Your task to perform on an android device: allow cookies in the chrome app Image 0: 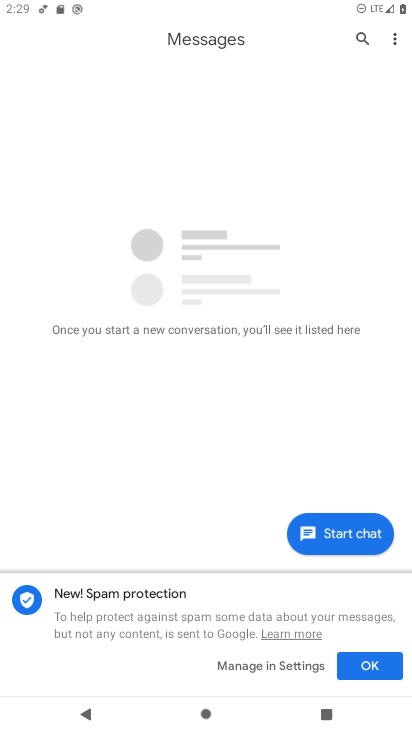
Step 0: press home button
Your task to perform on an android device: allow cookies in the chrome app Image 1: 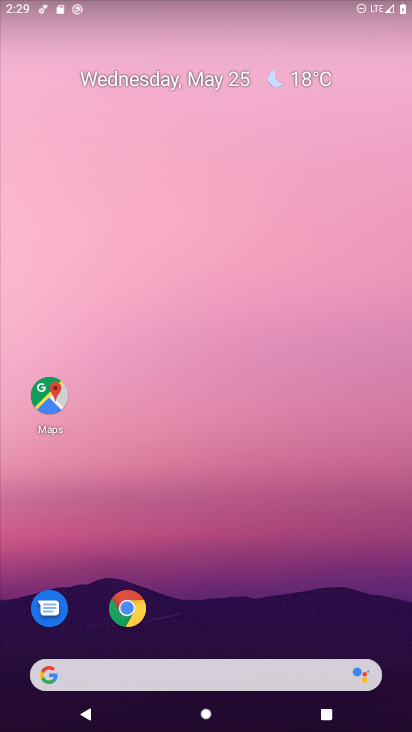
Step 1: click (125, 611)
Your task to perform on an android device: allow cookies in the chrome app Image 2: 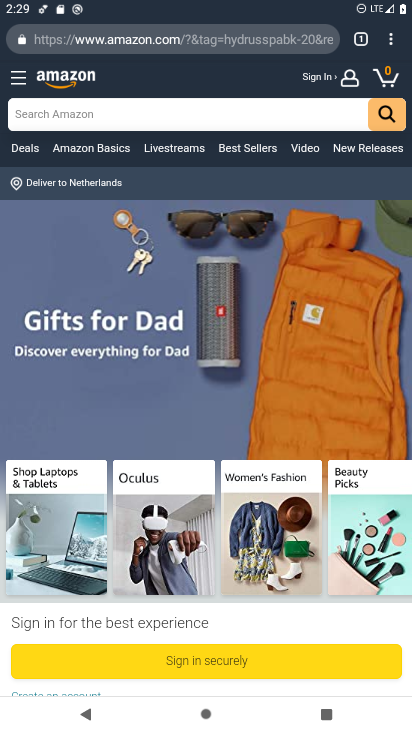
Step 2: click (389, 46)
Your task to perform on an android device: allow cookies in the chrome app Image 3: 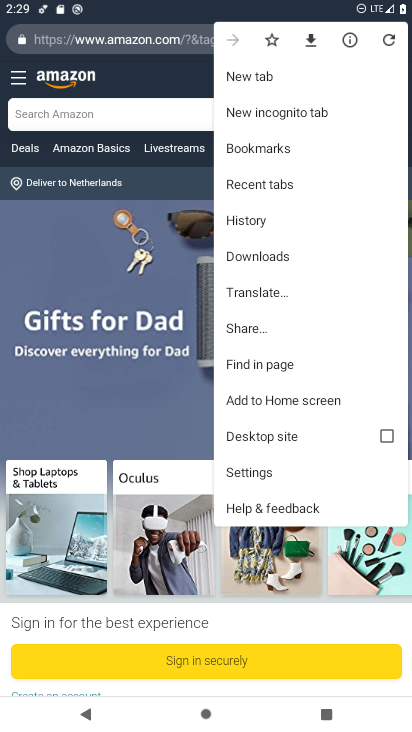
Step 3: click (253, 465)
Your task to perform on an android device: allow cookies in the chrome app Image 4: 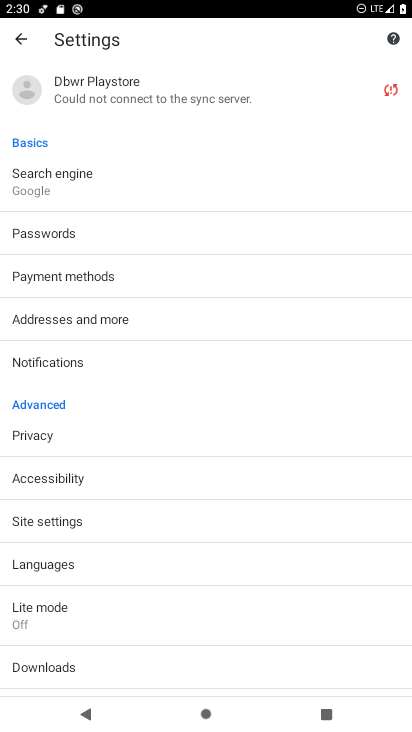
Step 4: click (75, 508)
Your task to perform on an android device: allow cookies in the chrome app Image 5: 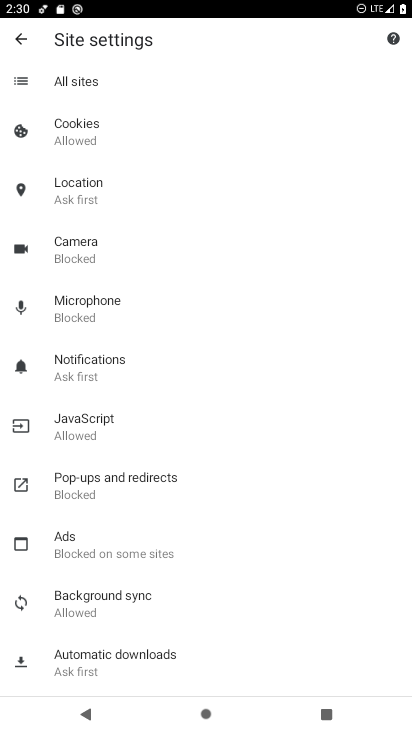
Step 5: click (92, 122)
Your task to perform on an android device: allow cookies in the chrome app Image 6: 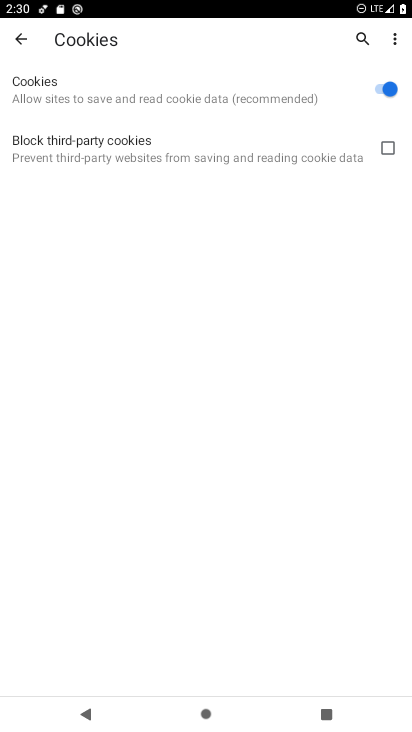
Step 6: task complete